Your task to perform on an android device: Search for Mexican restaurants on Maps Image 0: 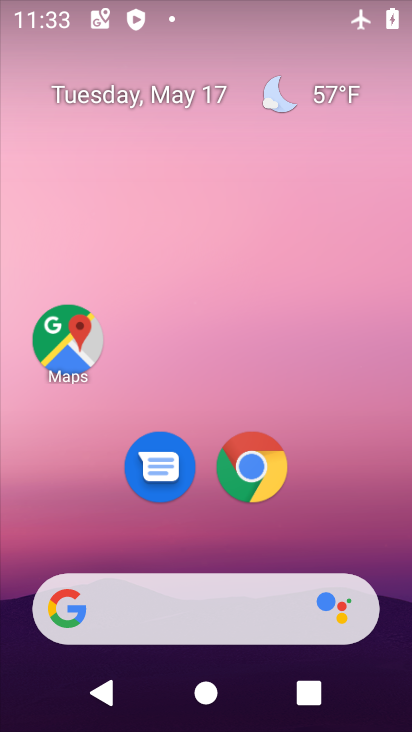
Step 0: press home button
Your task to perform on an android device: Search for Mexican restaurants on Maps Image 1: 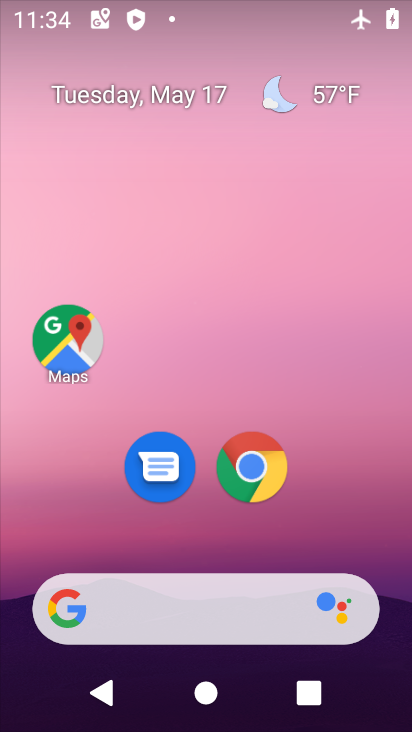
Step 1: drag from (275, 652) to (304, 81)
Your task to perform on an android device: Search for Mexican restaurants on Maps Image 2: 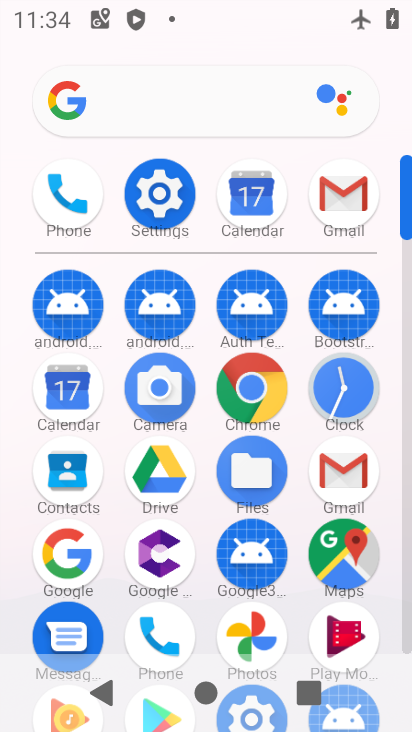
Step 2: click (339, 547)
Your task to perform on an android device: Search for Mexican restaurants on Maps Image 3: 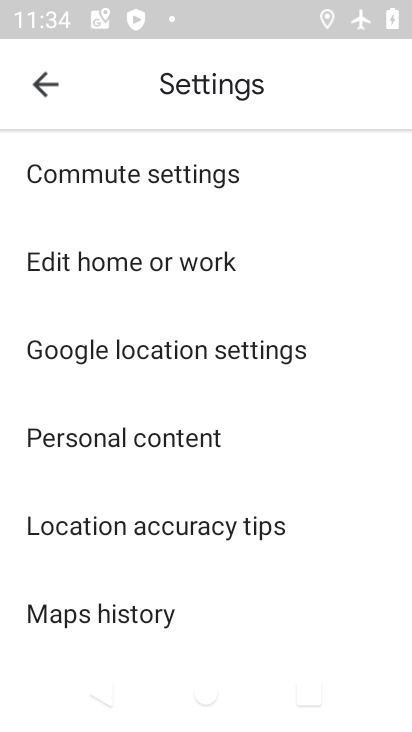
Step 3: click (47, 106)
Your task to perform on an android device: Search for Mexican restaurants on Maps Image 4: 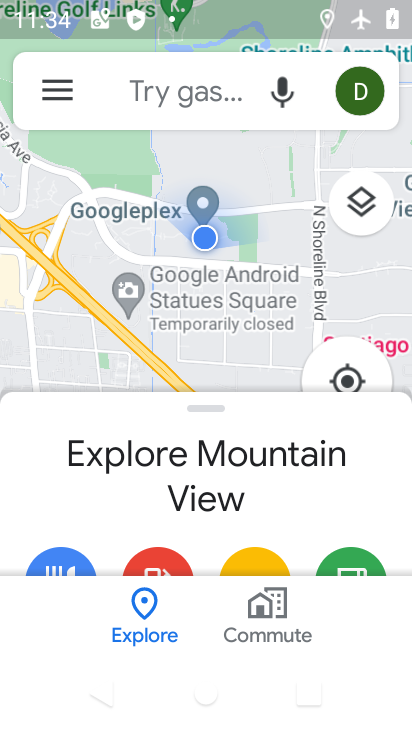
Step 4: click (198, 110)
Your task to perform on an android device: Search for Mexican restaurants on Maps Image 5: 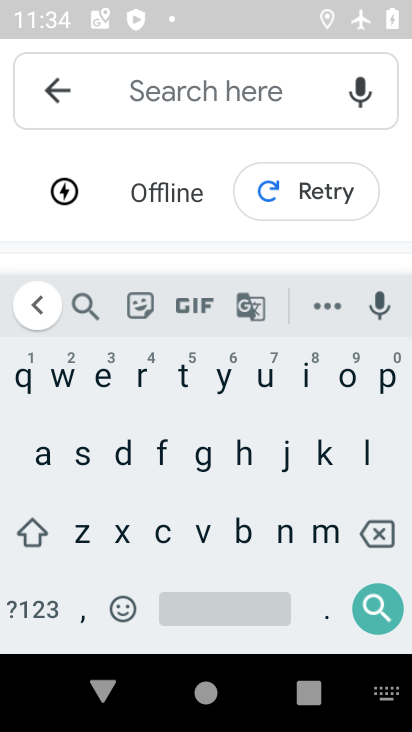
Step 5: click (328, 531)
Your task to perform on an android device: Search for Mexican restaurants on Maps Image 6: 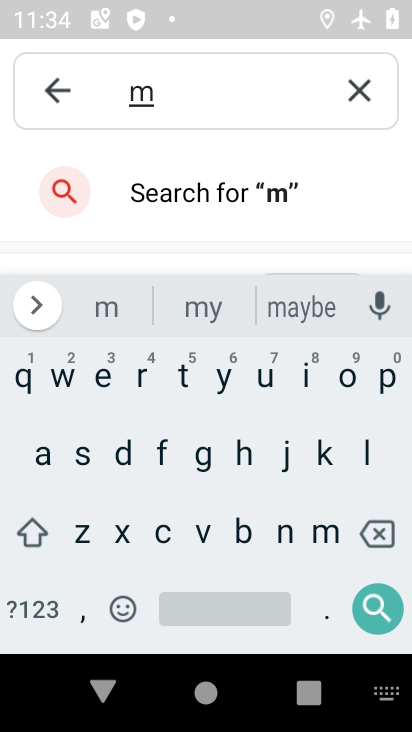
Step 6: press home button
Your task to perform on an android device: Search for Mexican restaurants on Maps Image 7: 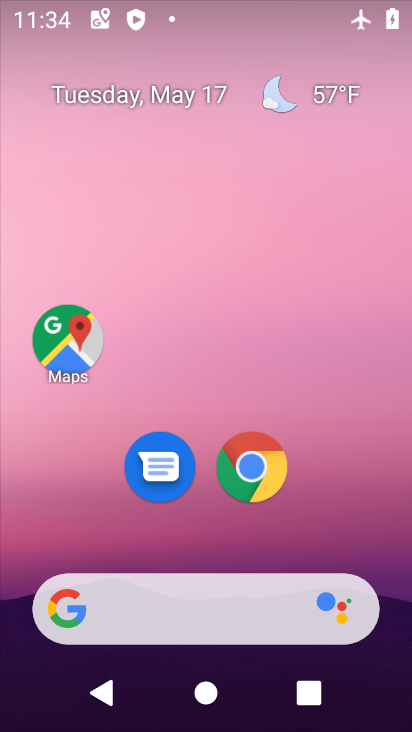
Step 7: drag from (265, 659) to (302, 218)
Your task to perform on an android device: Search for Mexican restaurants on Maps Image 8: 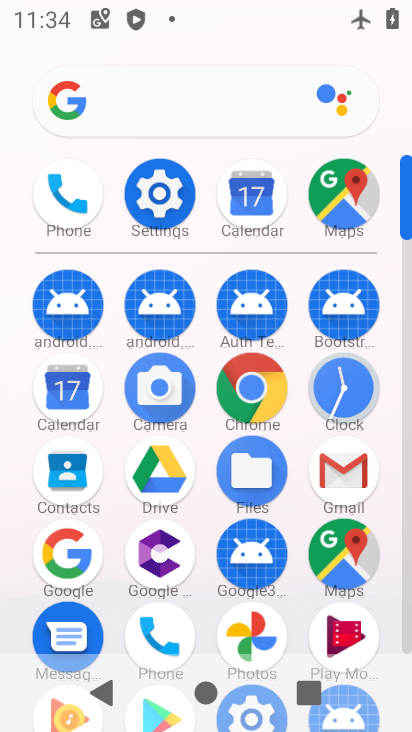
Step 8: click (164, 183)
Your task to perform on an android device: Search for Mexican restaurants on Maps Image 9: 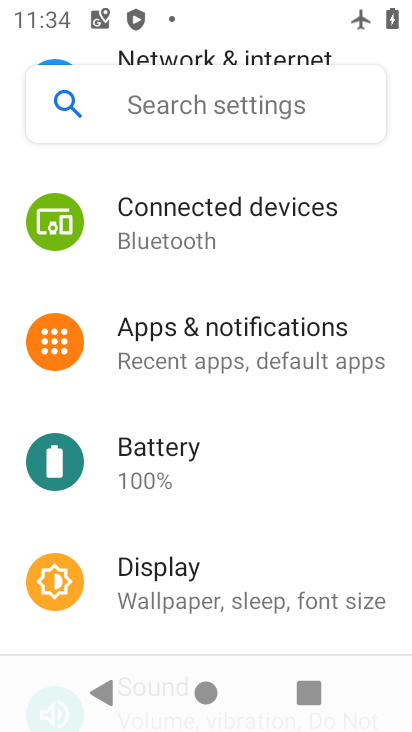
Step 9: drag from (193, 214) to (247, 441)
Your task to perform on an android device: Search for Mexican restaurants on Maps Image 10: 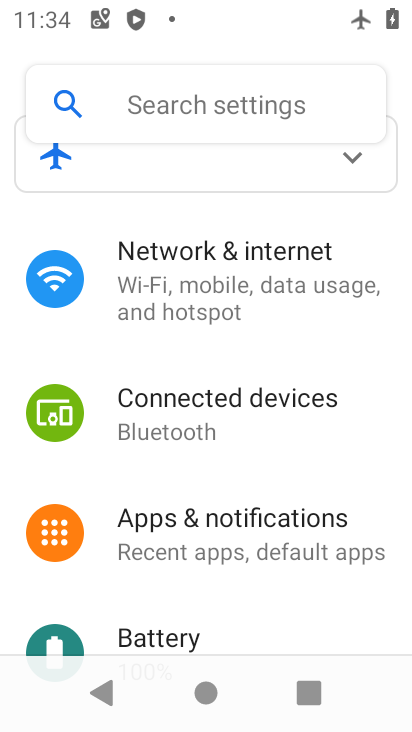
Step 10: click (240, 305)
Your task to perform on an android device: Search for Mexican restaurants on Maps Image 11: 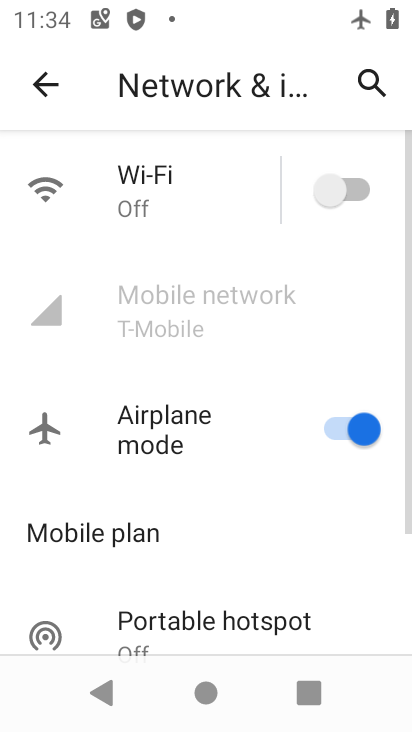
Step 11: click (343, 435)
Your task to perform on an android device: Search for Mexican restaurants on Maps Image 12: 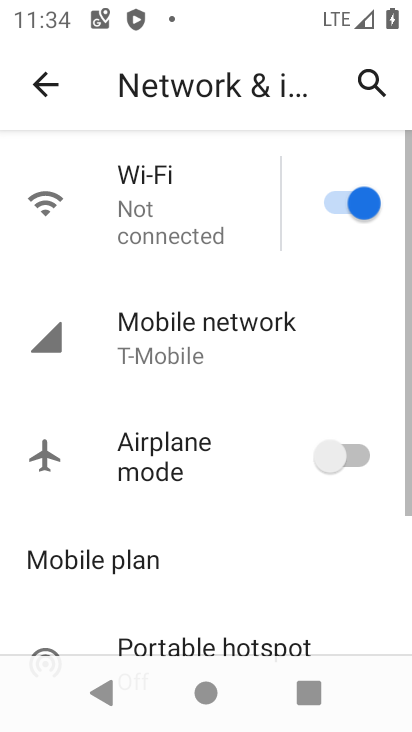
Step 12: press home button
Your task to perform on an android device: Search for Mexican restaurants on Maps Image 13: 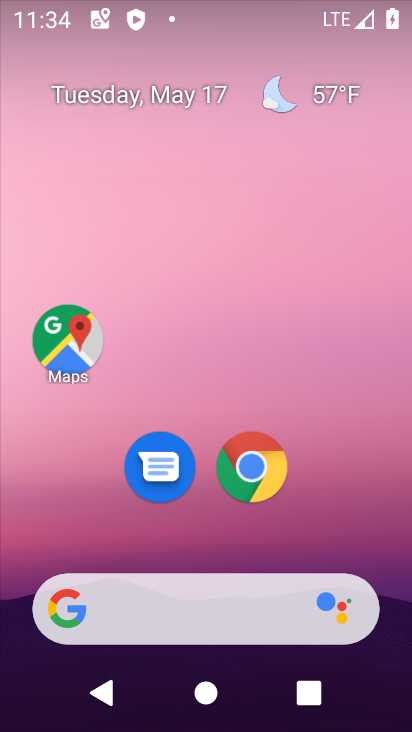
Step 13: drag from (272, 642) to (306, 267)
Your task to perform on an android device: Search for Mexican restaurants on Maps Image 14: 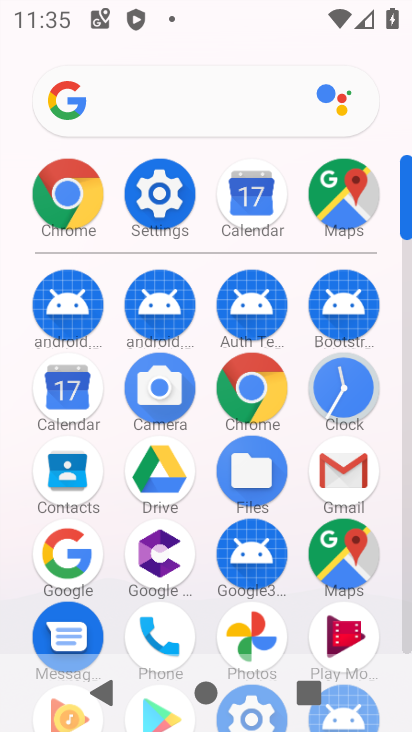
Step 14: click (334, 205)
Your task to perform on an android device: Search for Mexican restaurants on Maps Image 15: 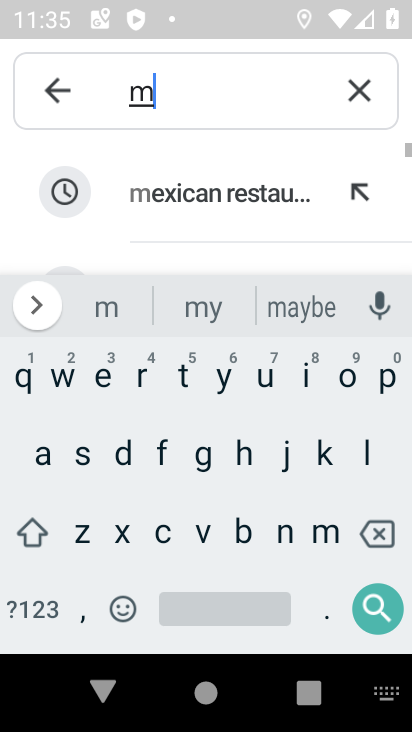
Step 15: click (211, 205)
Your task to perform on an android device: Search for Mexican restaurants on Maps Image 16: 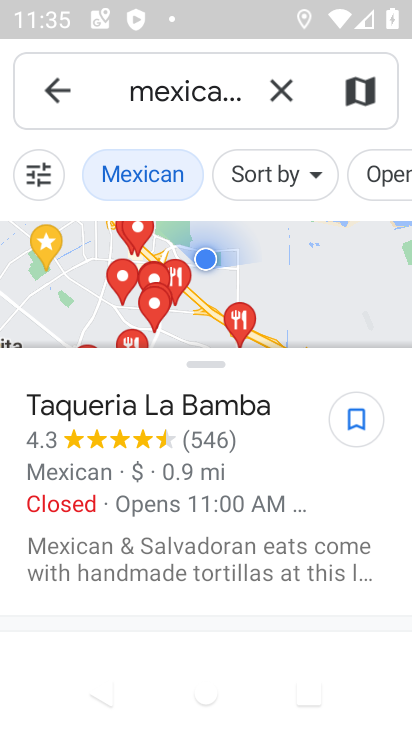
Step 16: click (74, 315)
Your task to perform on an android device: Search for Mexican restaurants on Maps Image 17: 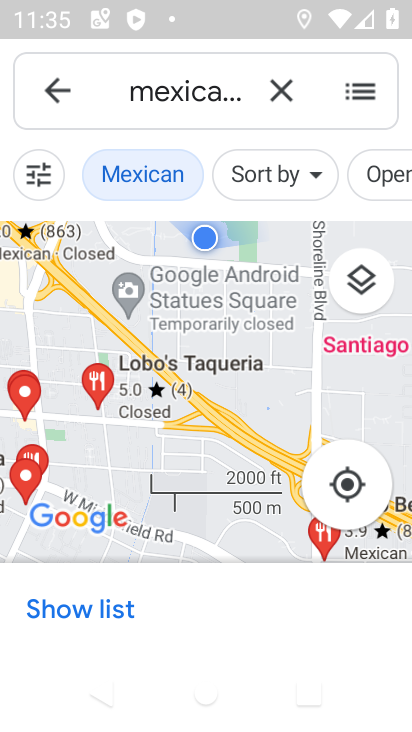
Step 17: task complete